Your task to perform on an android device: check storage Image 0: 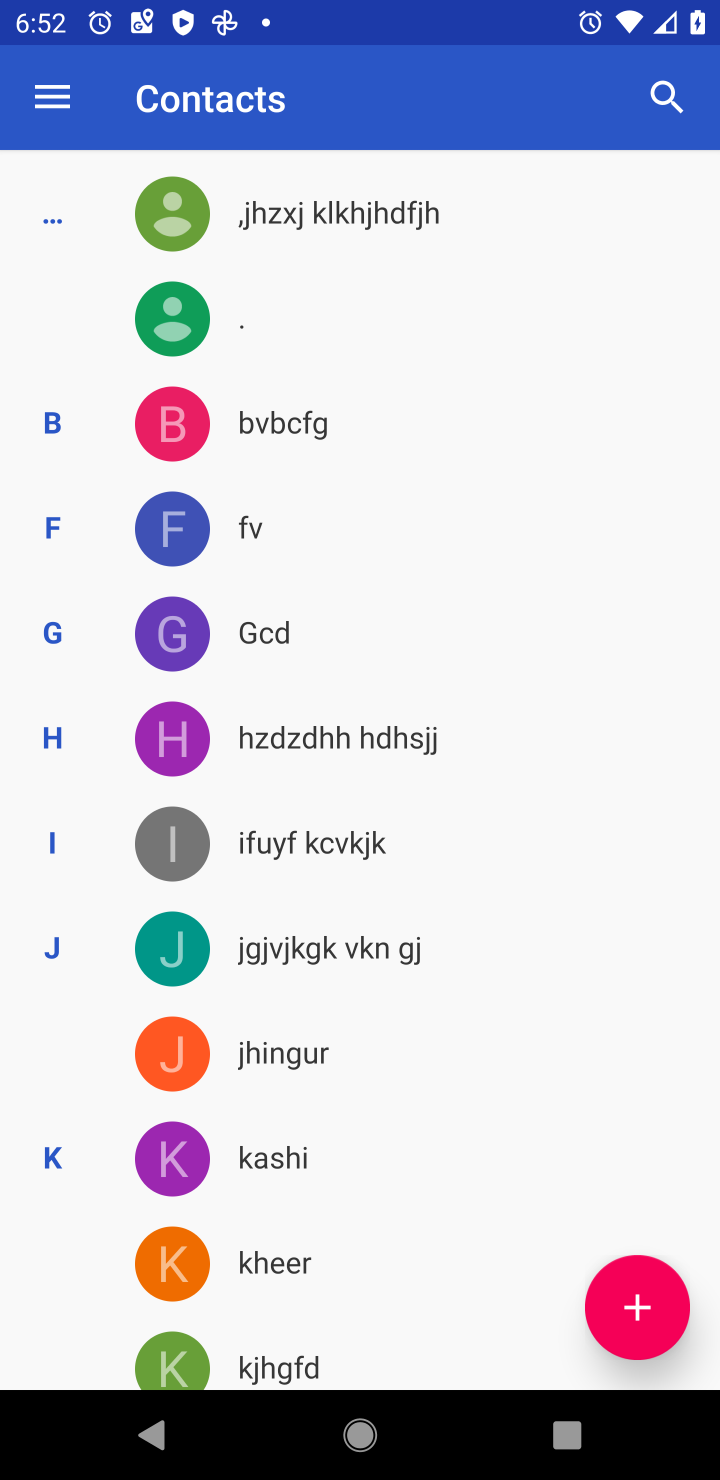
Step 0: press home button
Your task to perform on an android device: check storage Image 1: 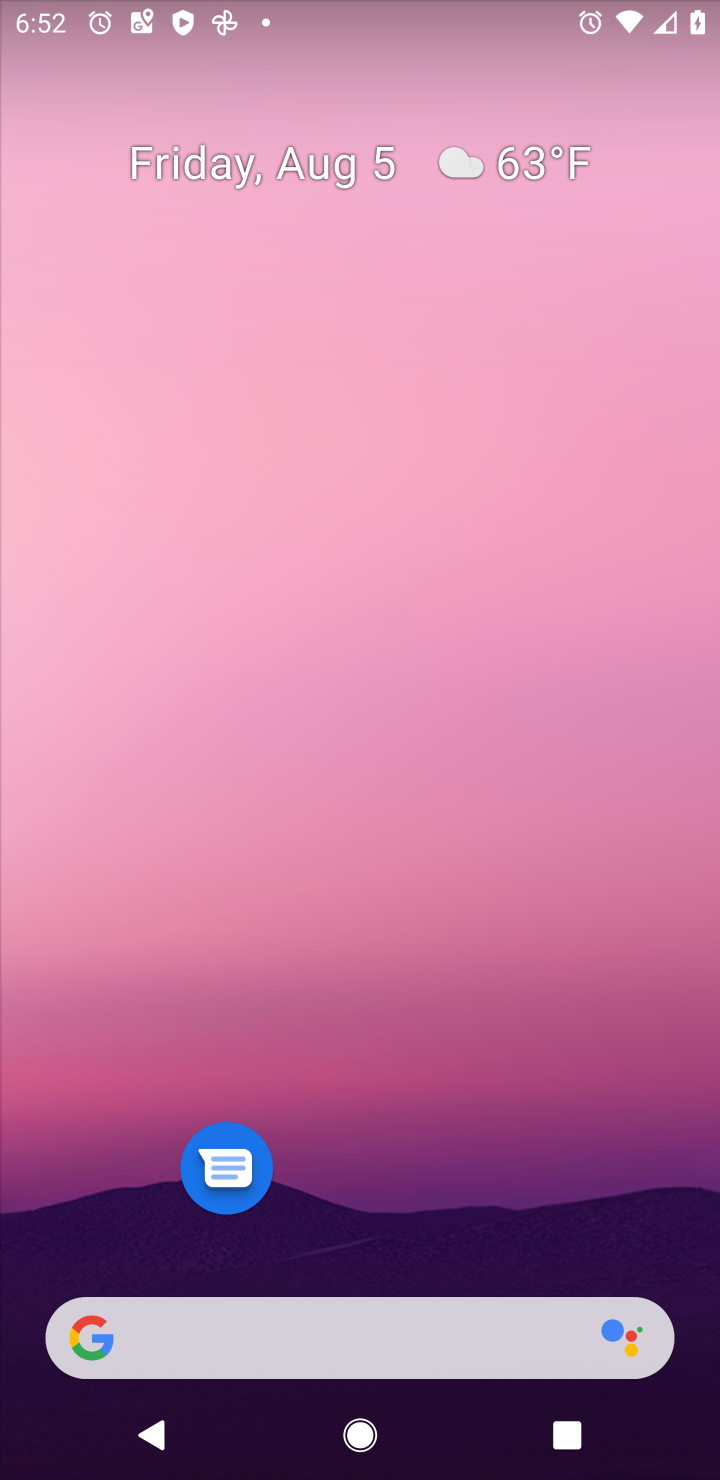
Step 1: drag from (457, 1060) to (530, 213)
Your task to perform on an android device: check storage Image 2: 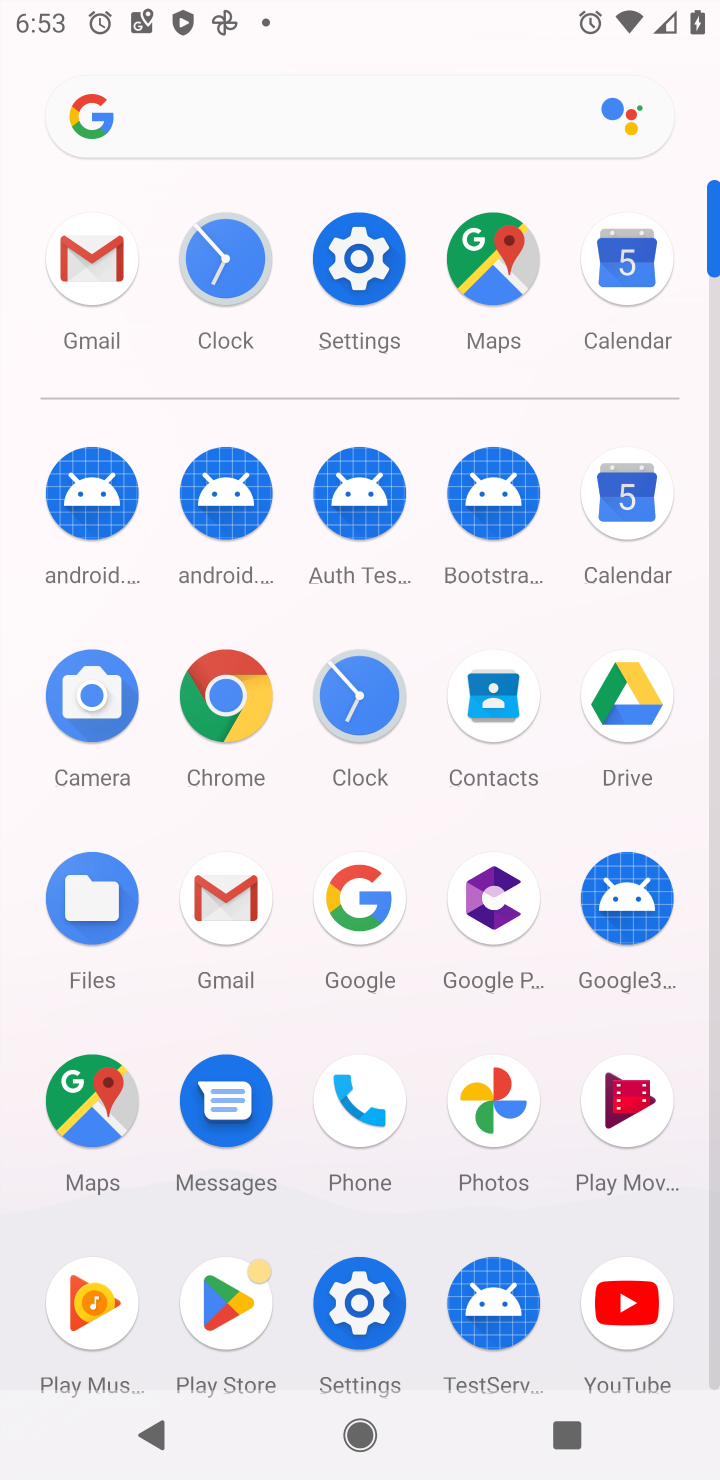
Step 2: click (365, 270)
Your task to perform on an android device: check storage Image 3: 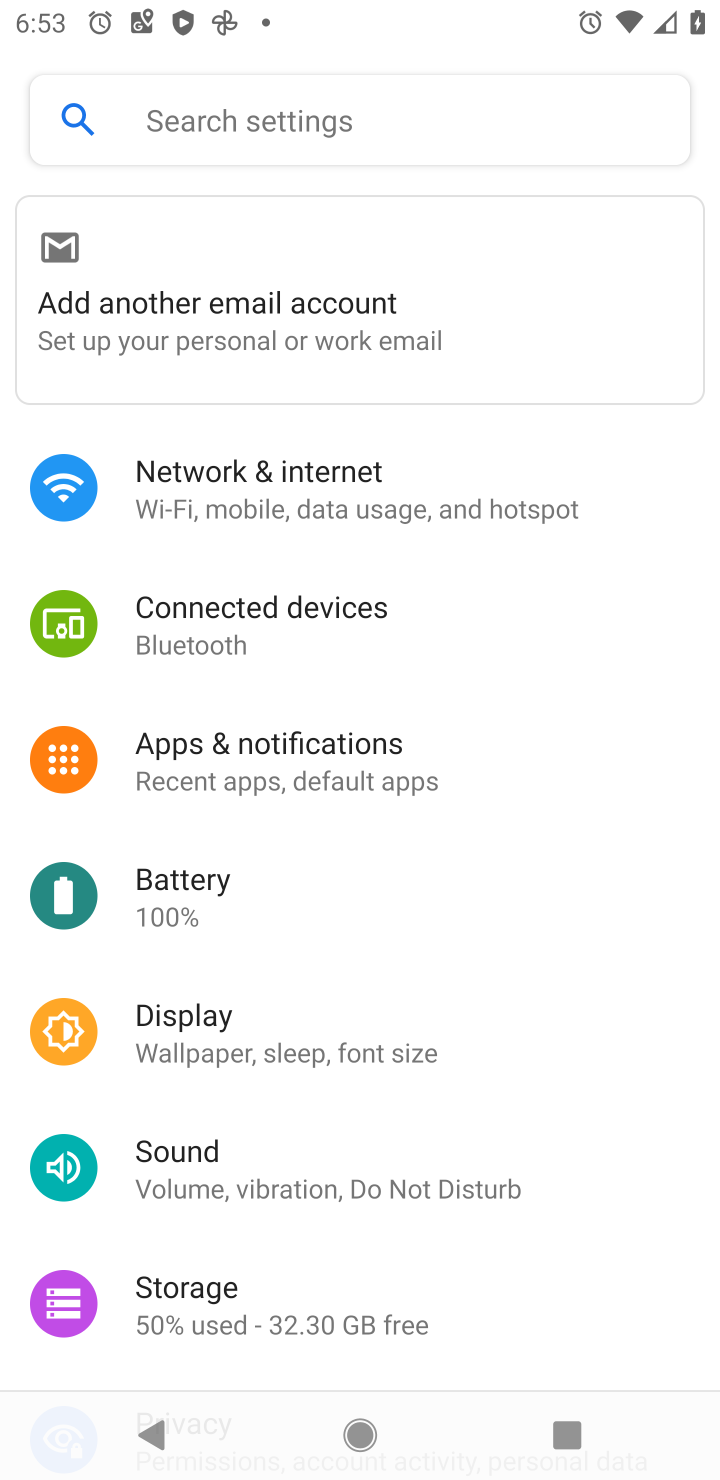
Step 3: click (174, 1306)
Your task to perform on an android device: check storage Image 4: 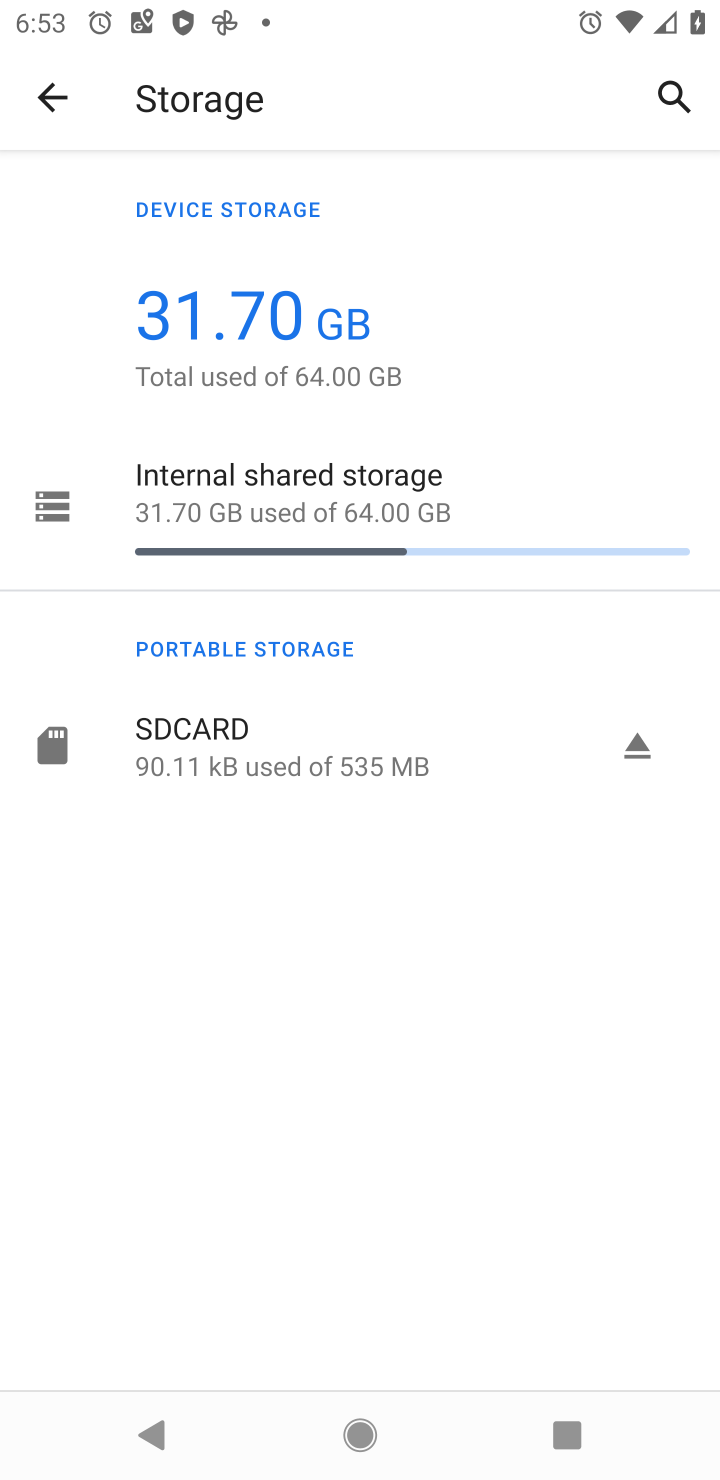
Step 4: task complete